Your task to perform on an android device: Open calendar and show me the first week of next month Image 0: 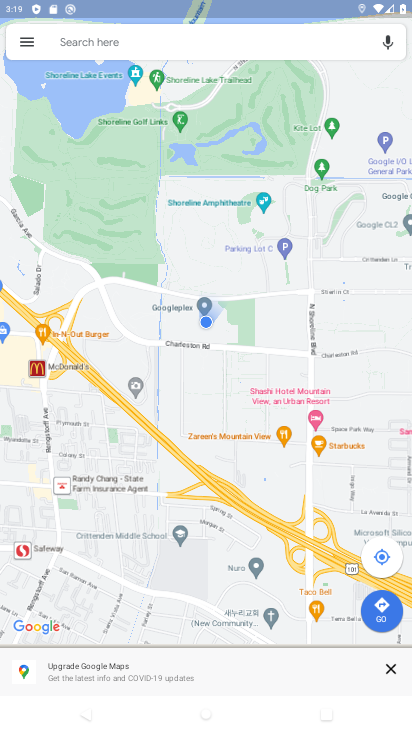
Step 0: press home button
Your task to perform on an android device: Open calendar and show me the first week of next month Image 1: 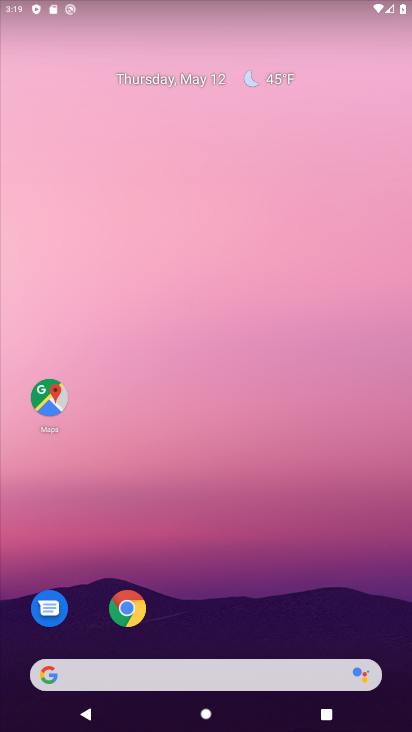
Step 1: click (199, 96)
Your task to perform on an android device: Open calendar and show me the first week of next month Image 2: 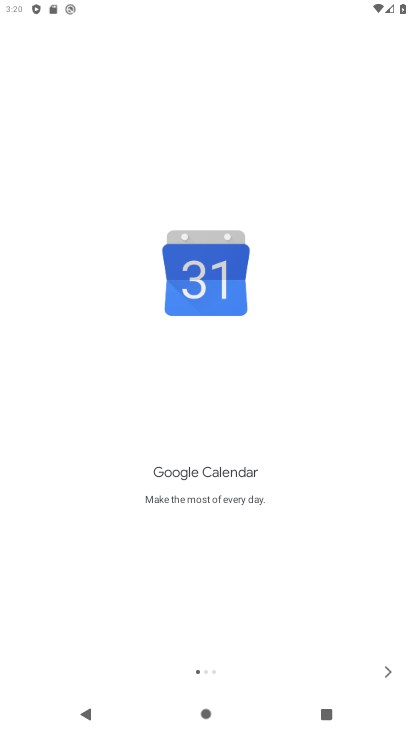
Step 2: click (379, 684)
Your task to perform on an android device: Open calendar and show me the first week of next month Image 3: 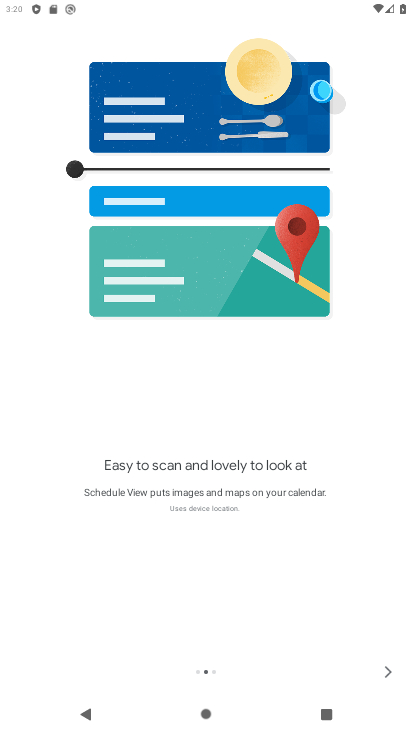
Step 3: click (379, 684)
Your task to perform on an android device: Open calendar and show me the first week of next month Image 4: 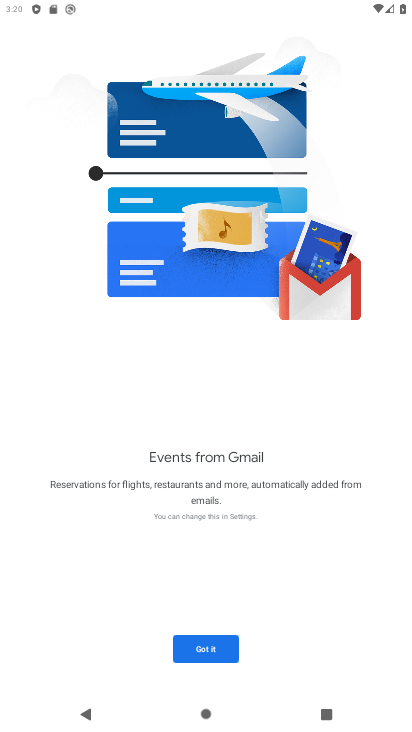
Step 4: click (379, 684)
Your task to perform on an android device: Open calendar and show me the first week of next month Image 5: 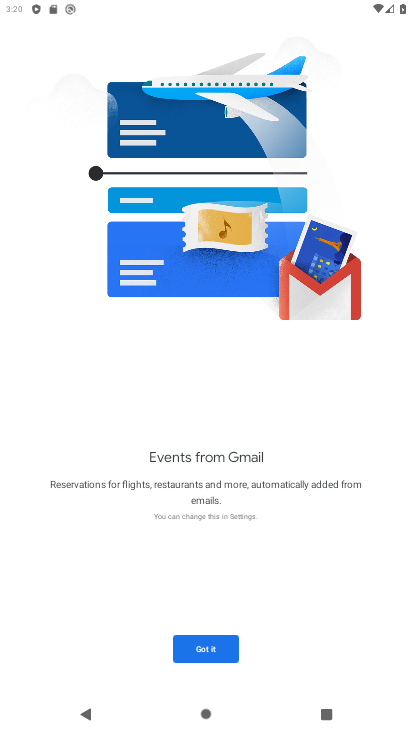
Step 5: click (212, 648)
Your task to perform on an android device: Open calendar and show me the first week of next month Image 6: 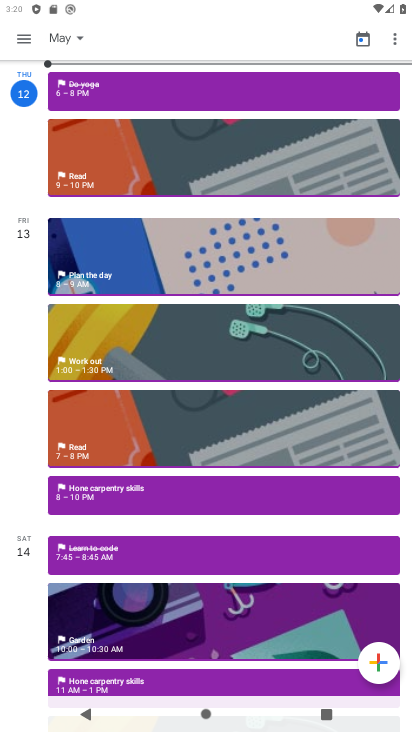
Step 6: click (81, 44)
Your task to perform on an android device: Open calendar and show me the first week of next month Image 7: 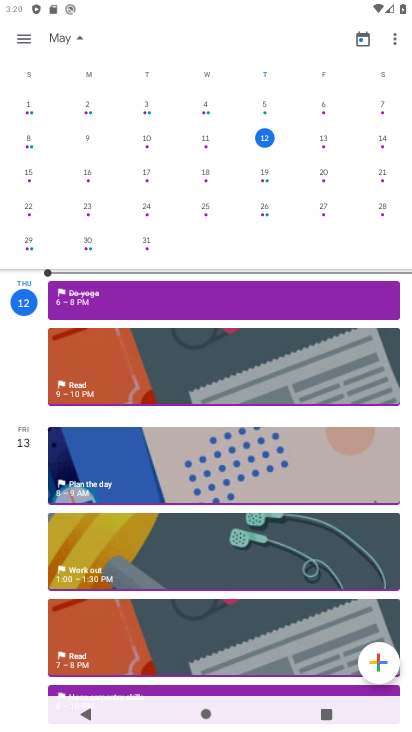
Step 7: drag from (261, 244) to (4, 218)
Your task to perform on an android device: Open calendar and show me the first week of next month Image 8: 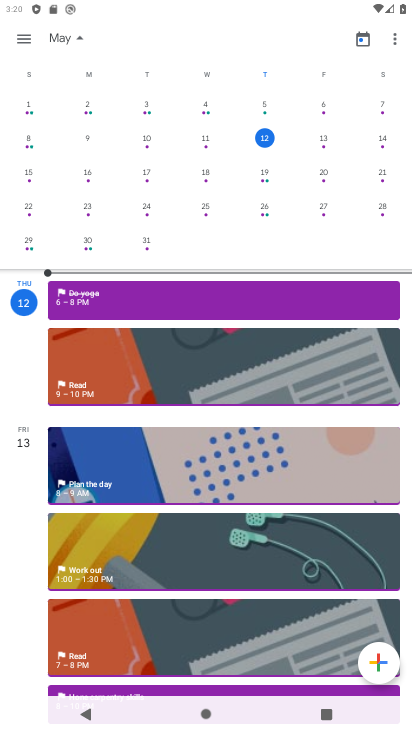
Step 8: drag from (376, 235) to (64, 304)
Your task to perform on an android device: Open calendar and show me the first week of next month Image 9: 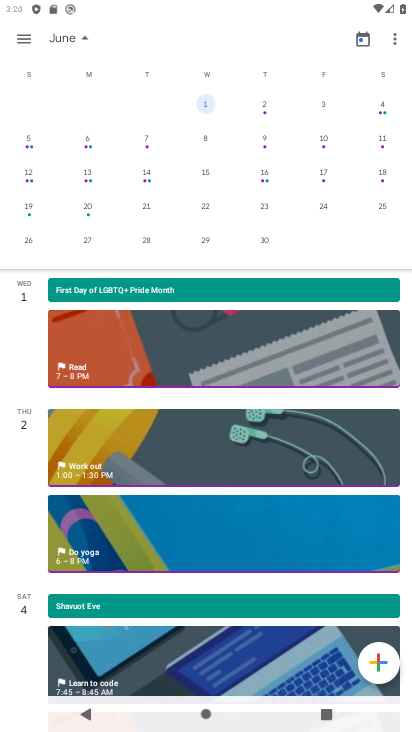
Step 9: click (211, 97)
Your task to perform on an android device: Open calendar and show me the first week of next month Image 10: 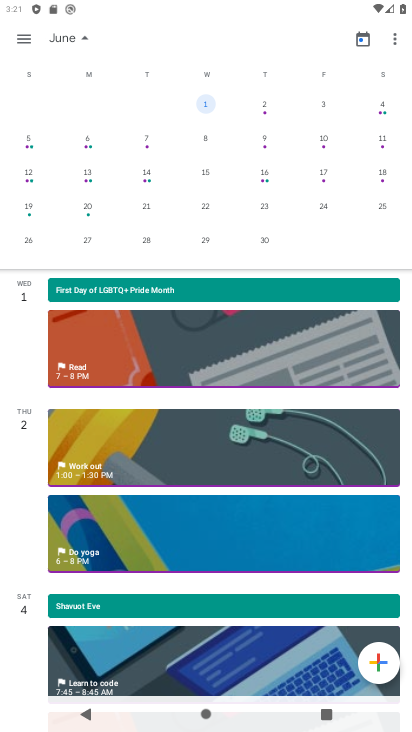
Step 10: task complete